Your task to perform on an android device: Open display settings Image 0: 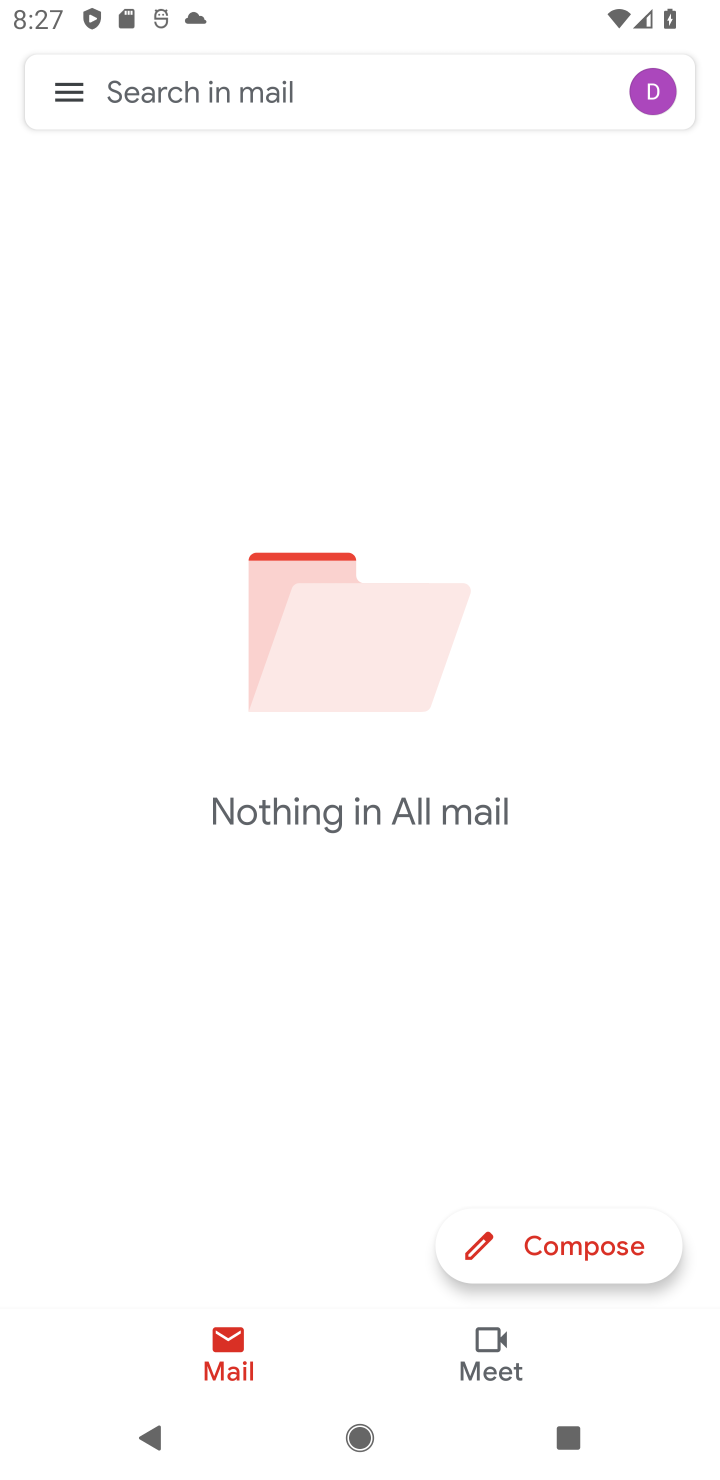
Step 0: press back button
Your task to perform on an android device: Open display settings Image 1: 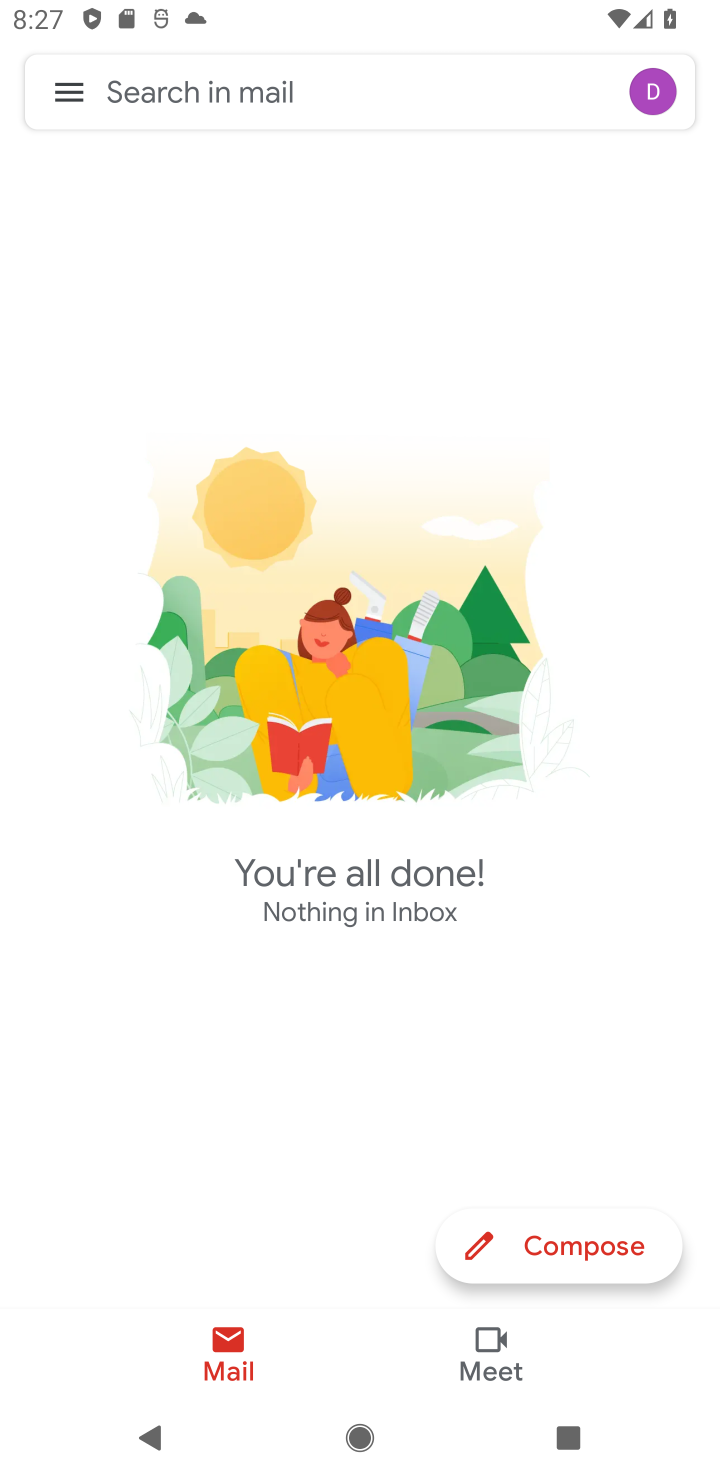
Step 1: press home button
Your task to perform on an android device: Open display settings Image 2: 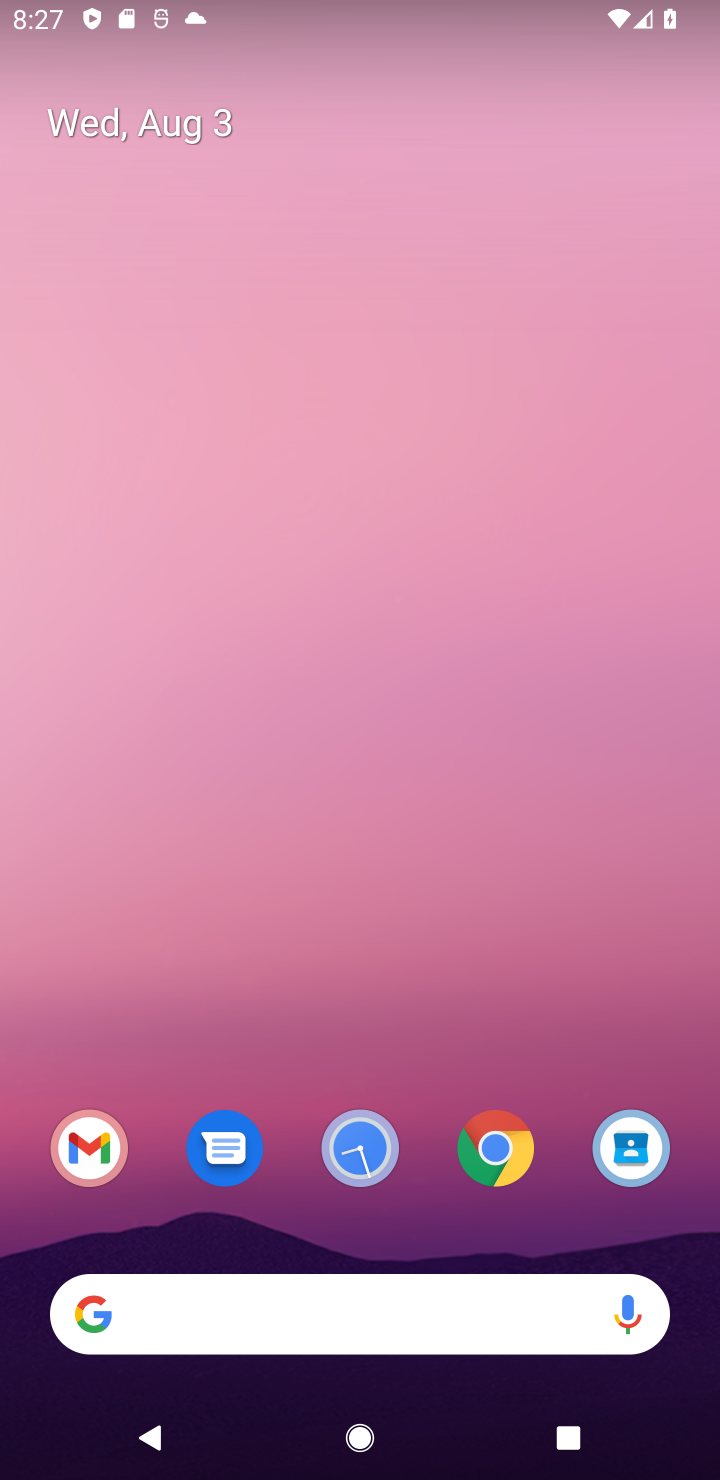
Step 2: drag from (432, 1076) to (394, 167)
Your task to perform on an android device: Open display settings Image 3: 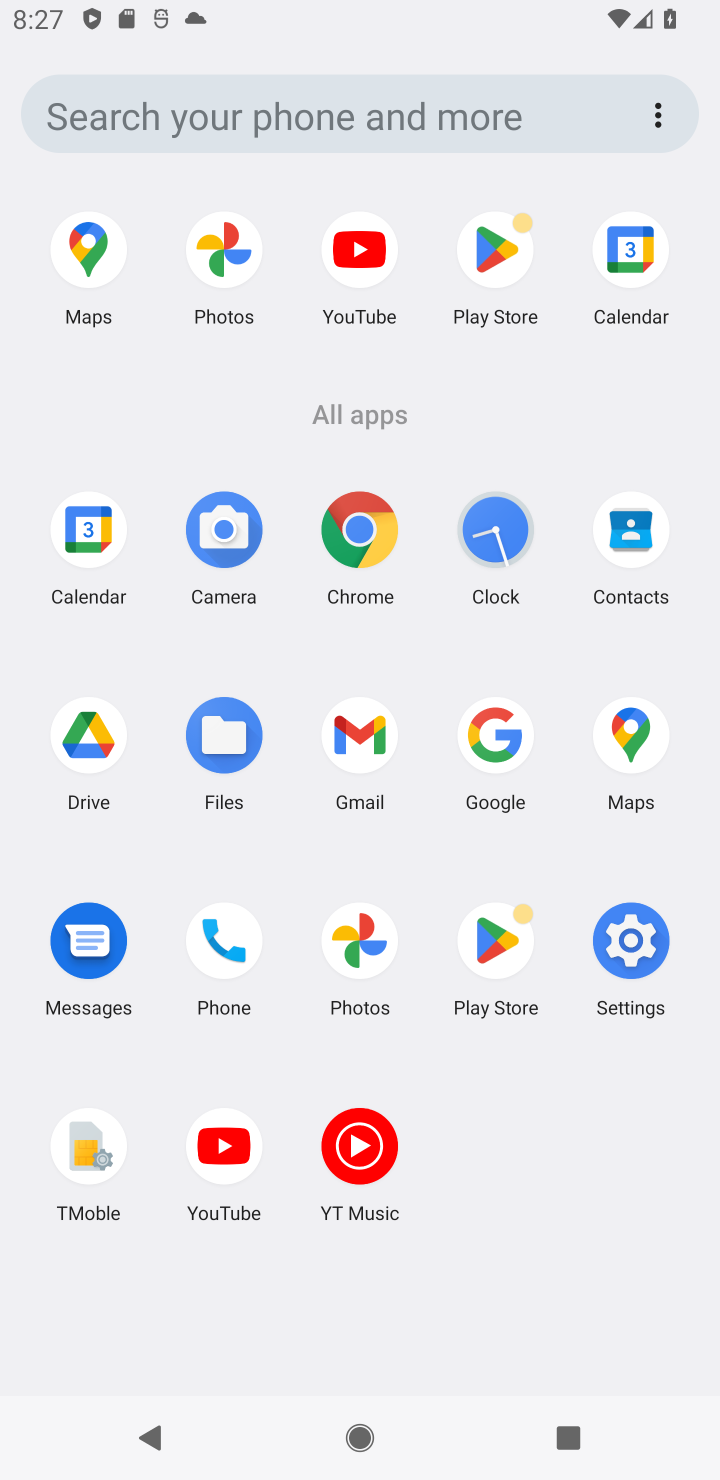
Step 3: click (634, 960)
Your task to perform on an android device: Open display settings Image 4: 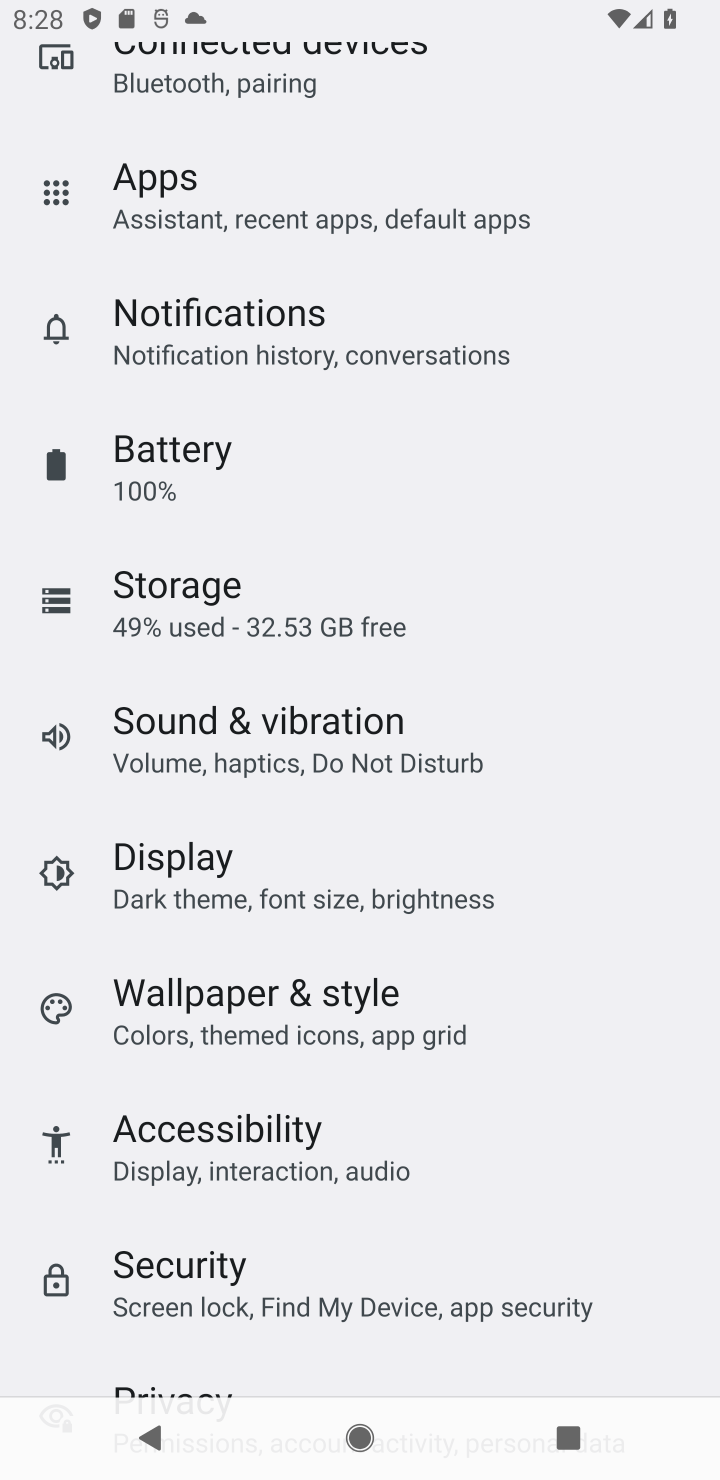
Step 4: click (303, 855)
Your task to perform on an android device: Open display settings Image 5: 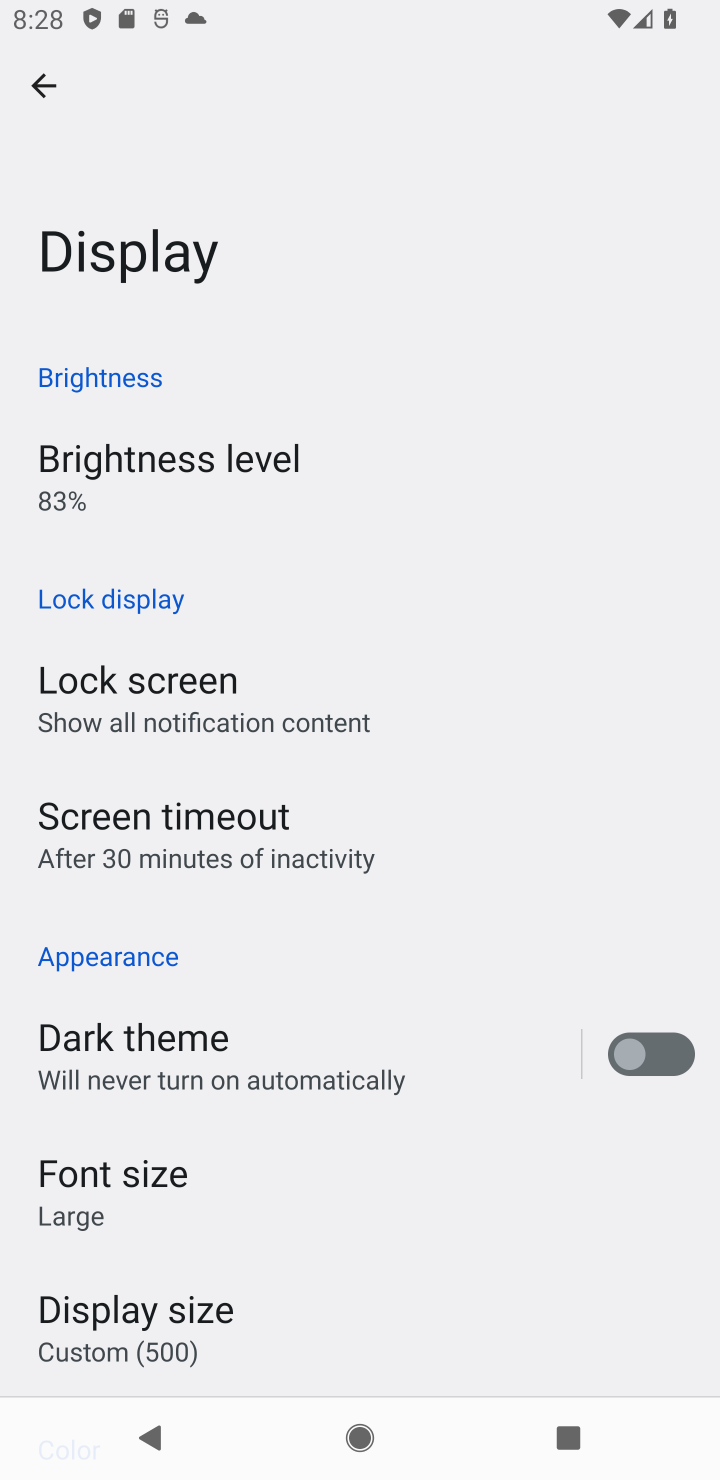
Step 5: task complete